Your task to perform on an android device: turn off notifications settings in the gmail app Image 0: 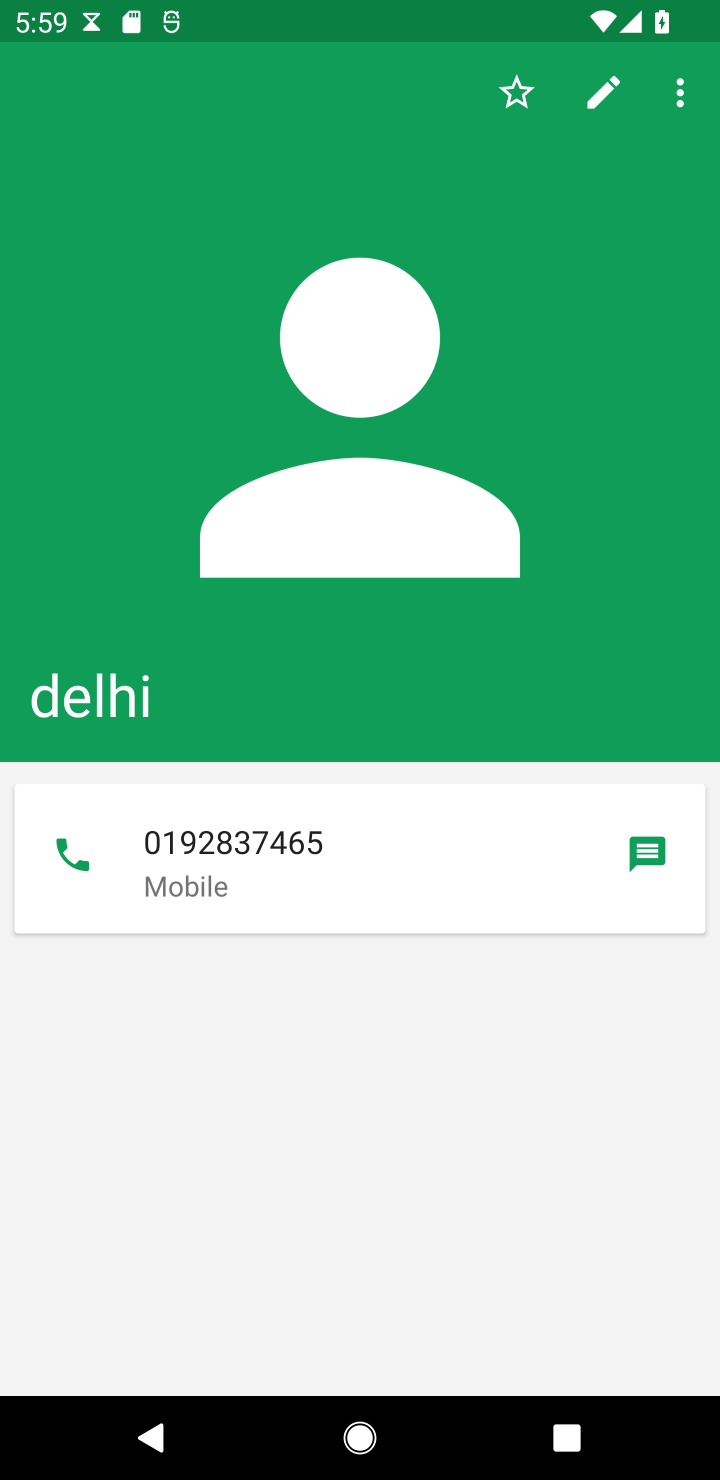
Step 0: press home button
Your task to perform on an android device: turn off notifications settings in the gmail app Image 1: 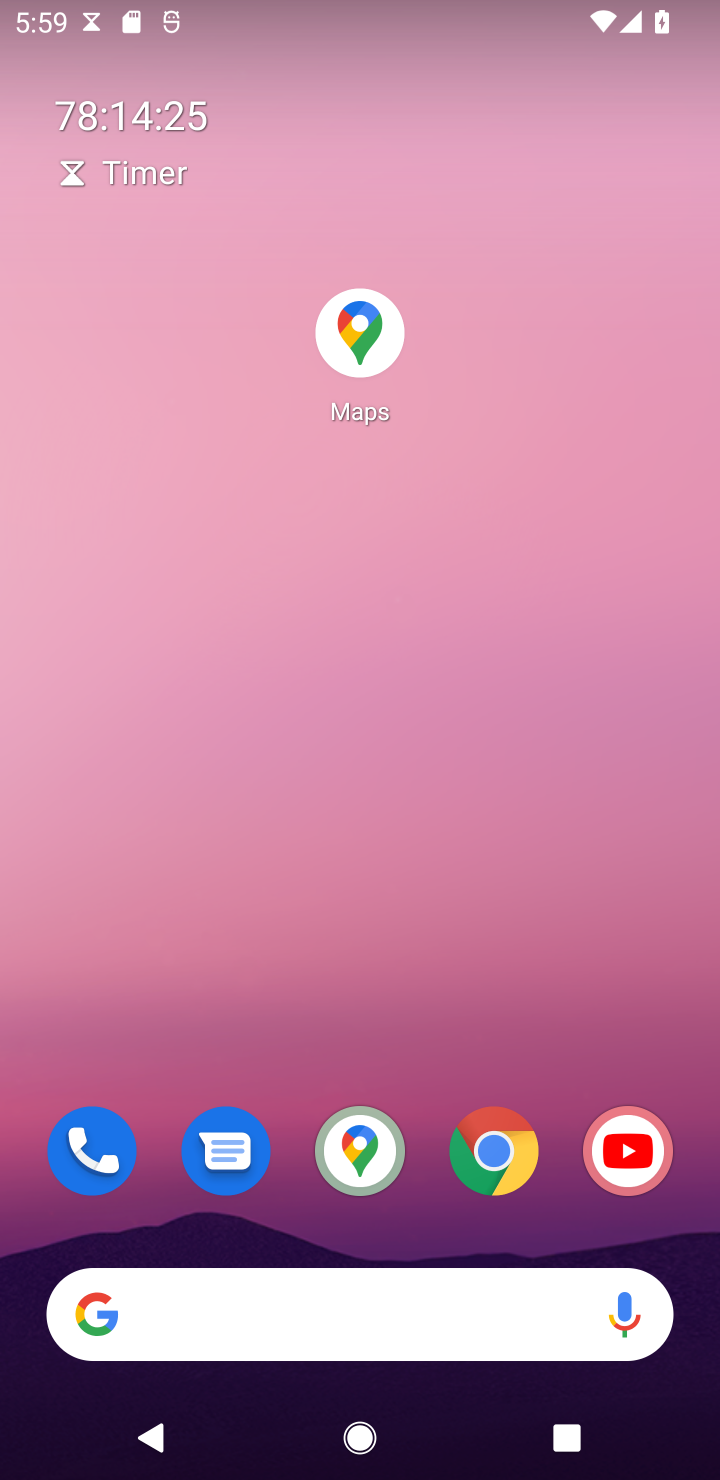
Step 1: drag from (352, 805) to (592, 36)
Your task to perform on an android device: turn off notifications settings in the gmail app Image 2: 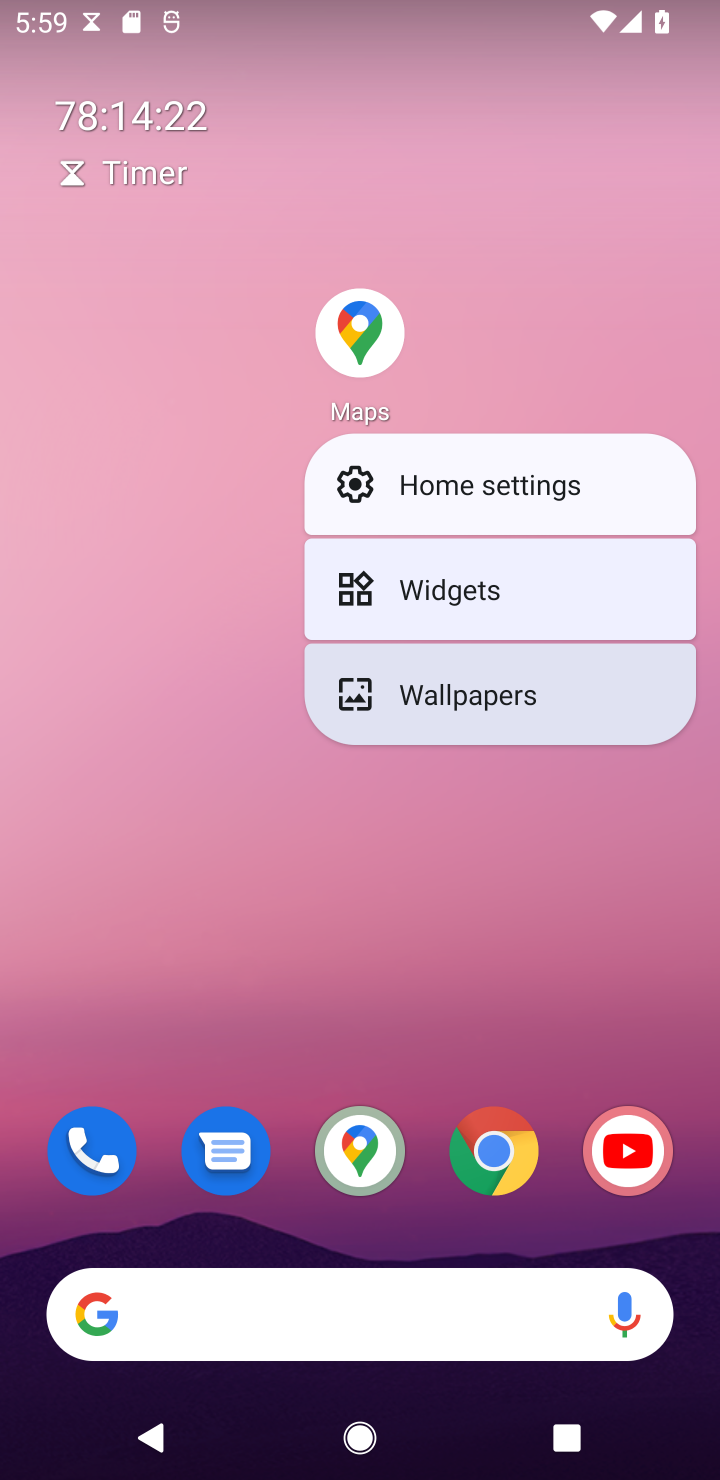
Step 2: click (297, 922)
Your task to perform on an android device: turn off notifications settings in the gmail app Image 3: 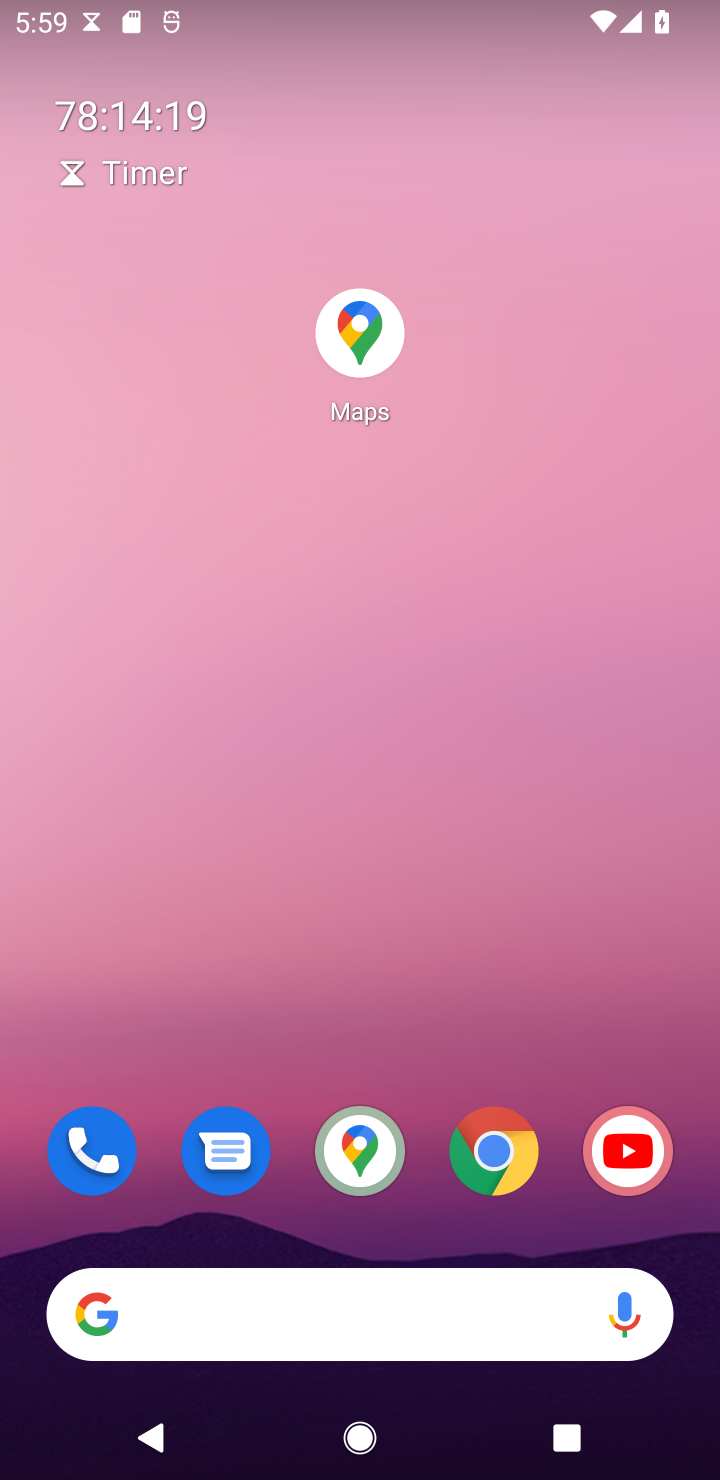
Step 3: drag from (344, 1284) to (469, 144)
Your task to perform on an android device: turn off notifications settings in the gmail app Image 4: 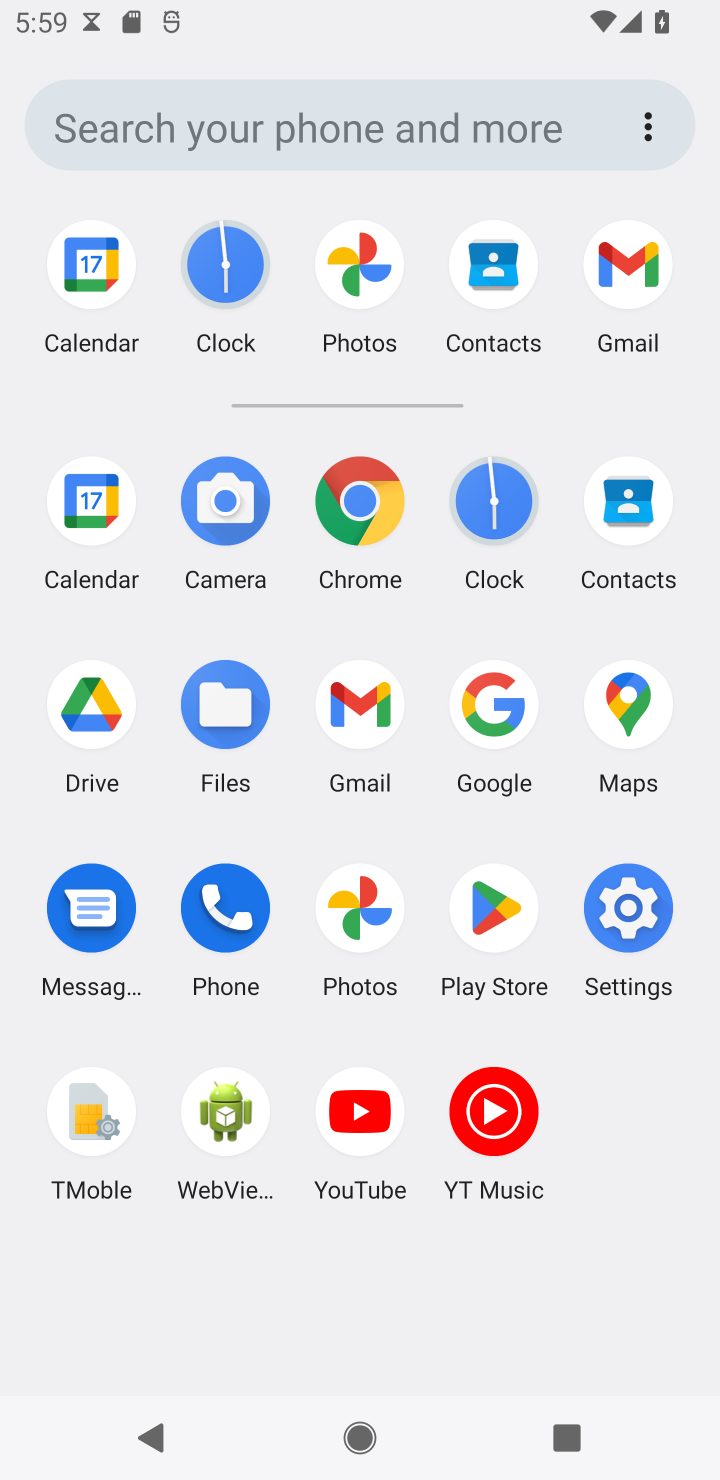
Step 4: click (358, 710)
Your task to perform on an android device: turn off notifications settings in the gmail app Image 5: 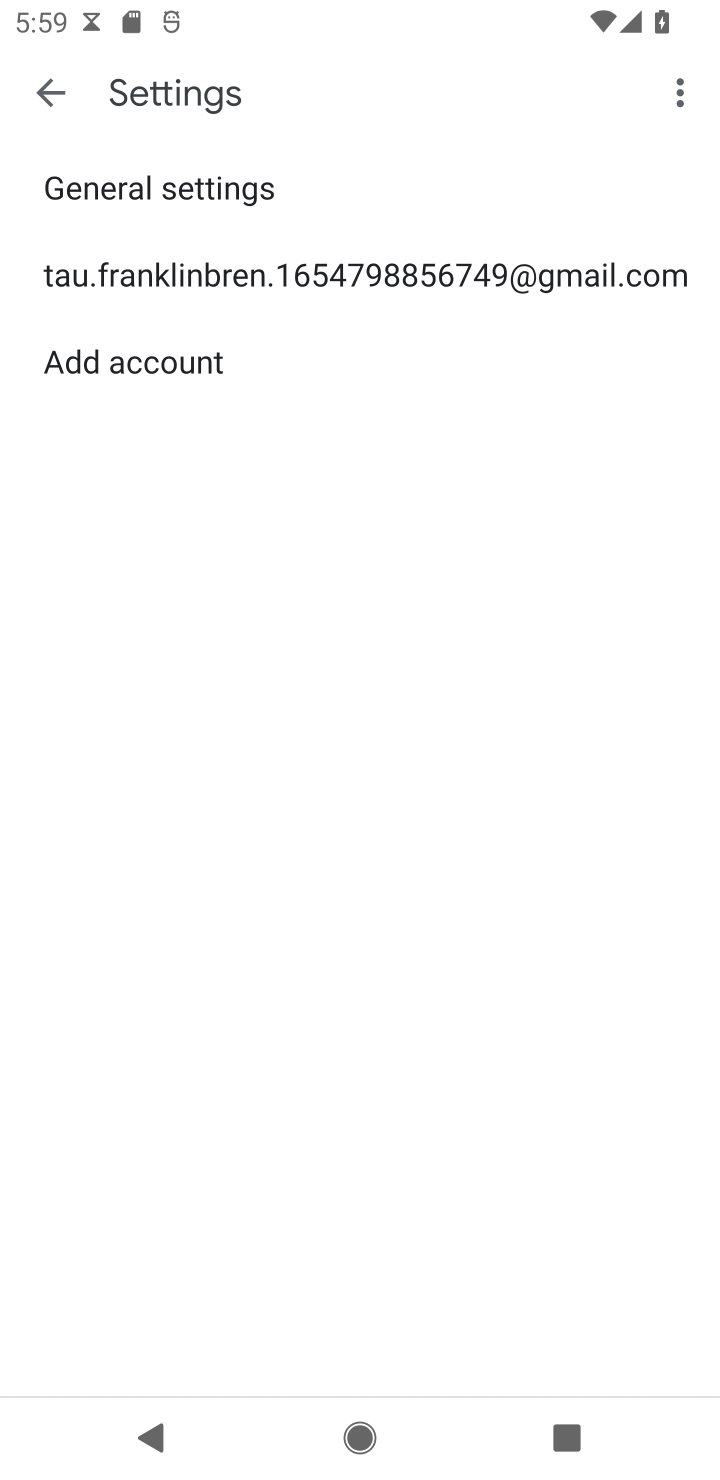
Step 5: click (218, 257)
Your task to perform on an android device: turn off notifications settings in the gmail app Image 6: 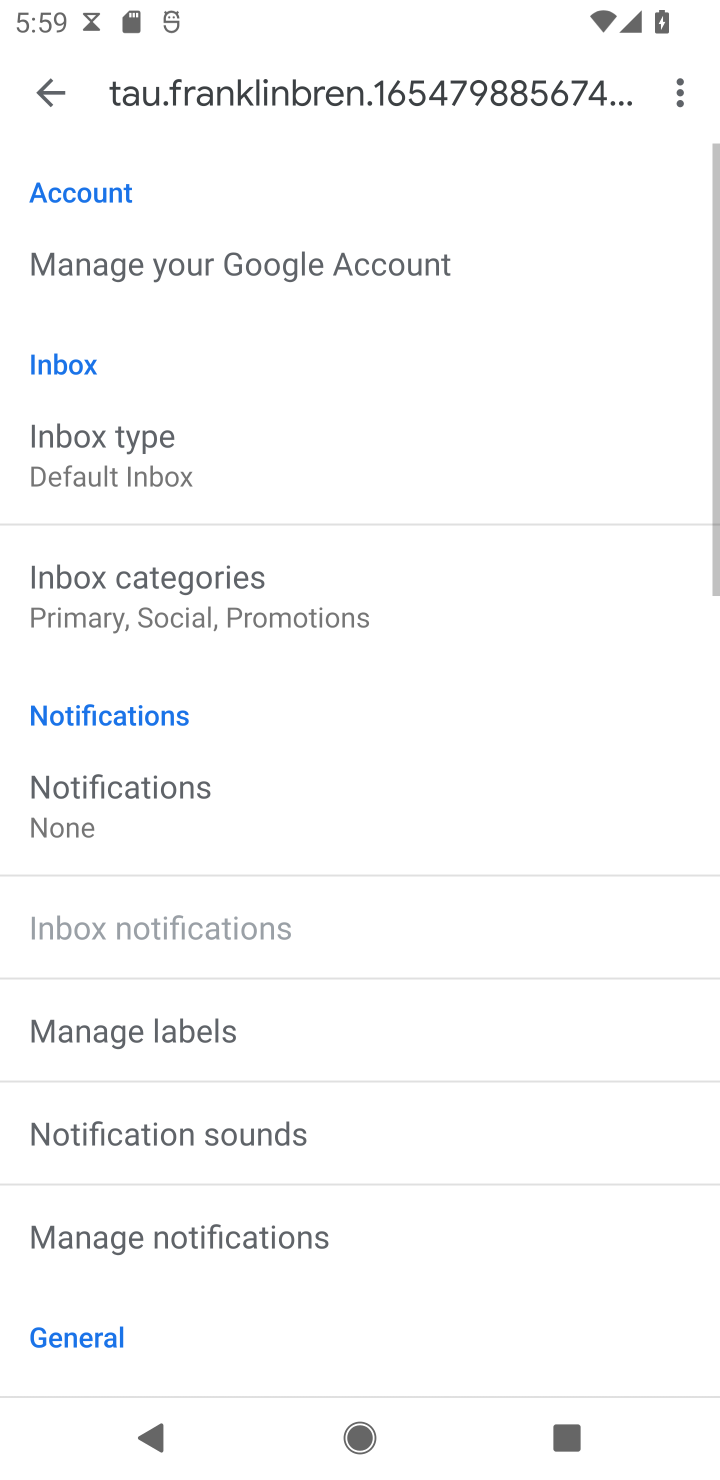
Step 6: click (85, 833)
Your task to perform on an android device: turn off notifications settings in the gmail app Image 7: 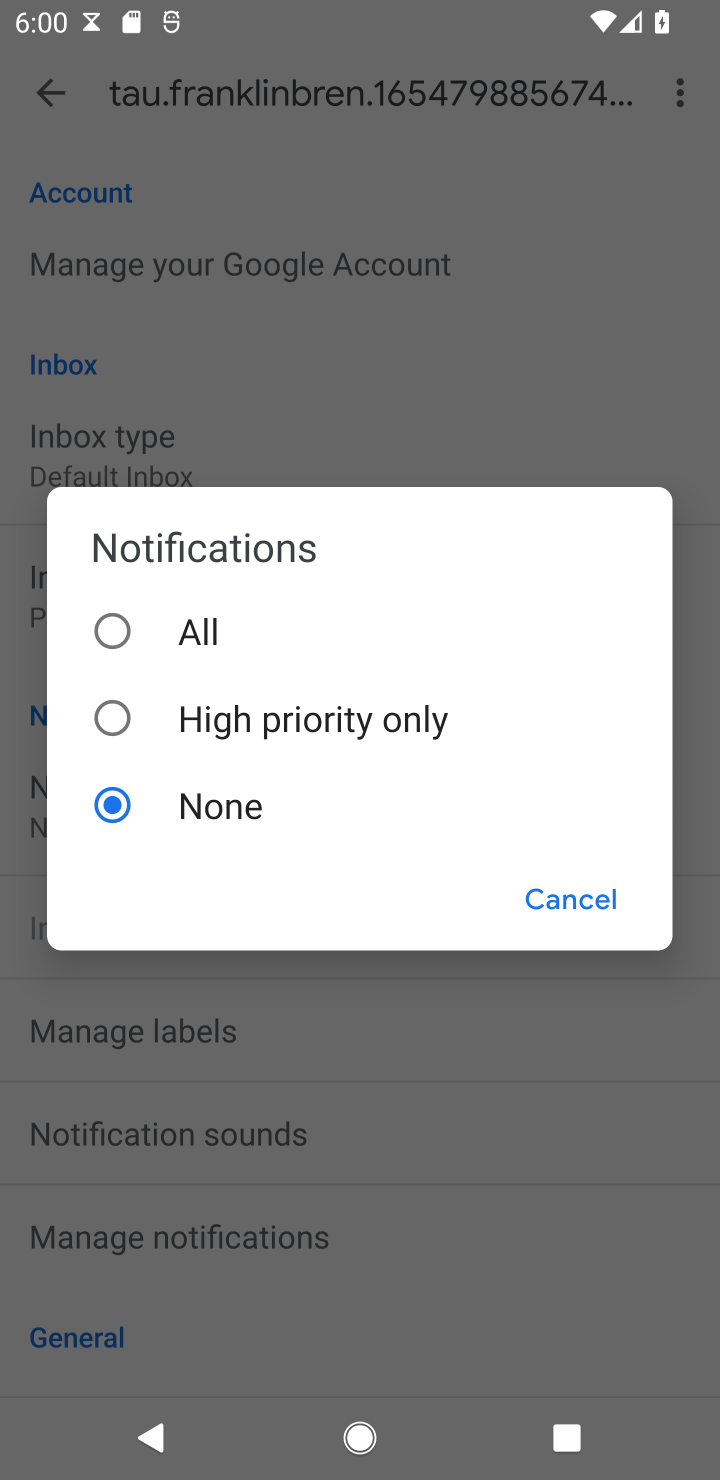
Step 7: task complete